Your task to perform on an android device: delete a single message in the gmail app Image 0: 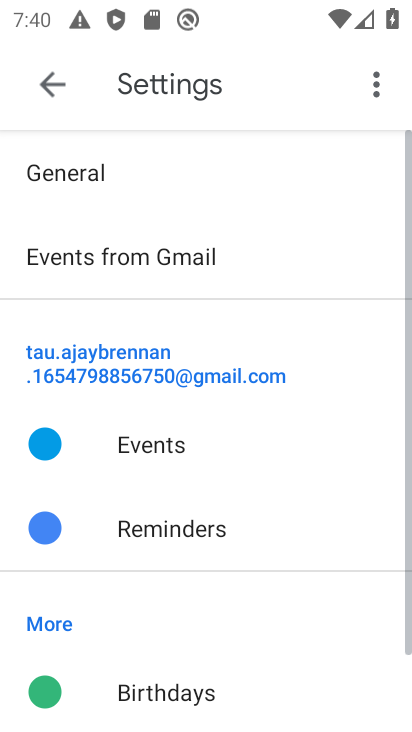
Step 0: click (242, 626)
Your task to perform on an android device: delete a single message in the gmail app Image 1: 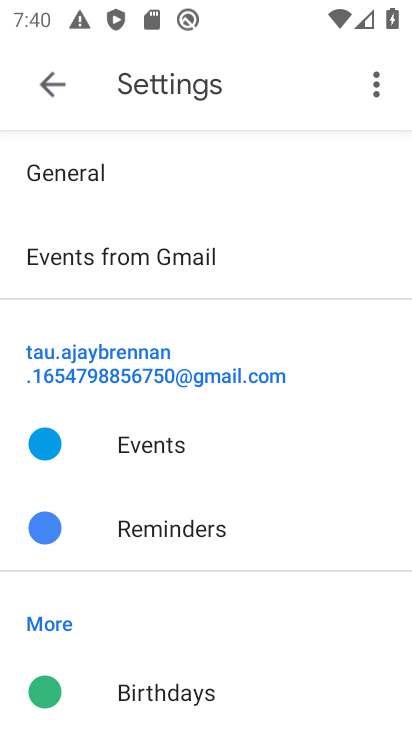
Step 1: press home button
Your task to perform on an android device: delete a single message in the gmail app Image 2: 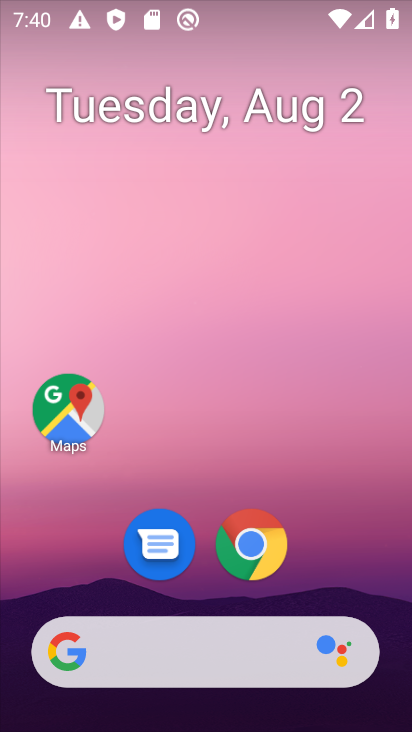
Step 2: drag from (199, 615) to (256, 178)
Your task to perform on an android device: delete a single message in the gmail app Image 3: 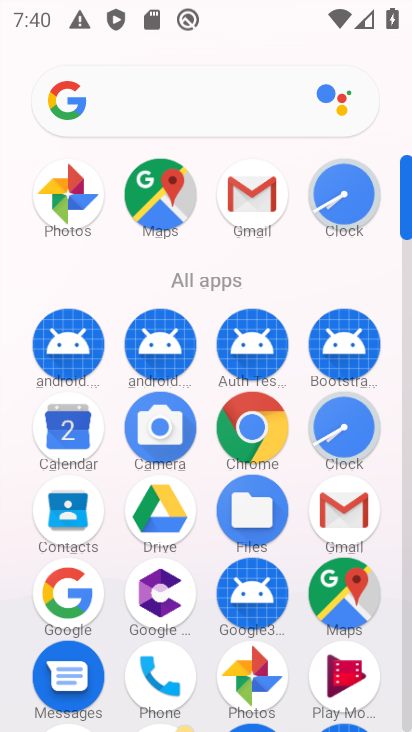
Step 3: click (254, 201)
Your task to perform on an android device: delete a single message in the gmail app Image 4: 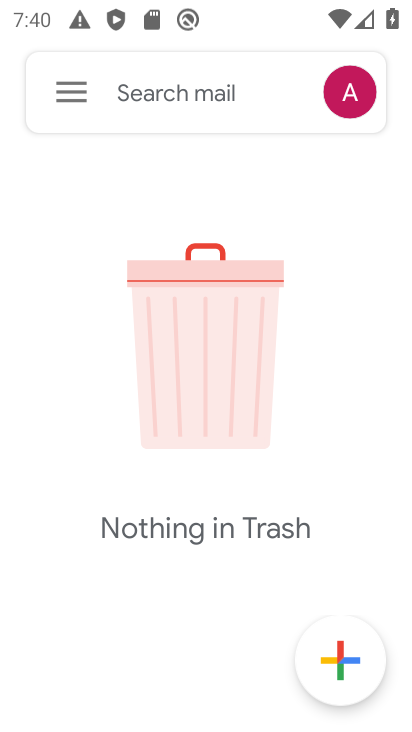
Step 4: click (56, 89)
Your task to perform on an android device: delete a single message in the gmail app Image 5: 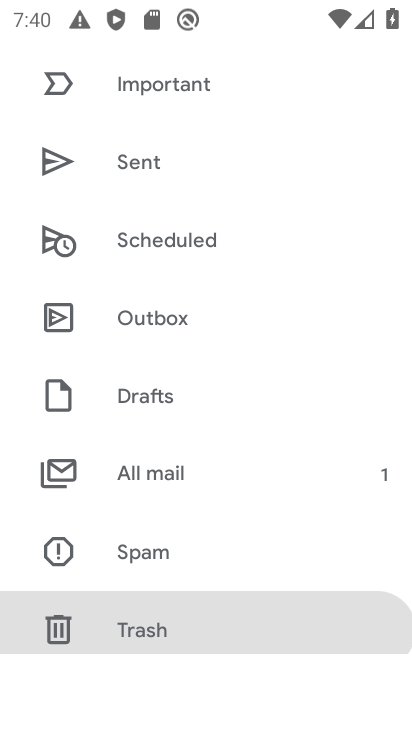
Step 5: drag from (161, 138) to (191, 456)
Your task to perform on an android device: delete a single message in the gmail app Image 6: 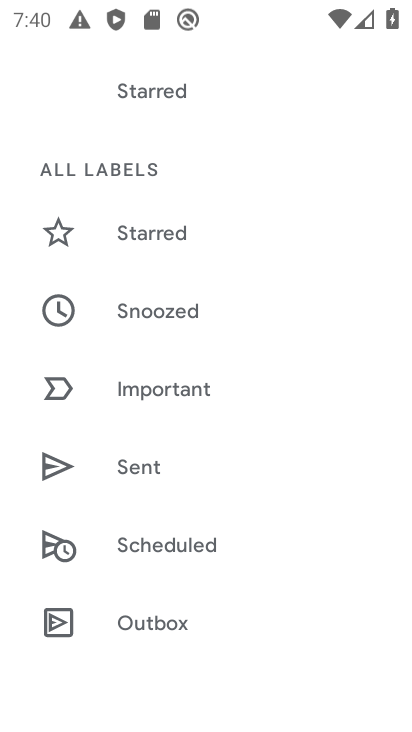
Step 6: drag from (190, 123) to (248, 492)
Your task to perform on an android device: delete a single message in the gmail app Image 7: 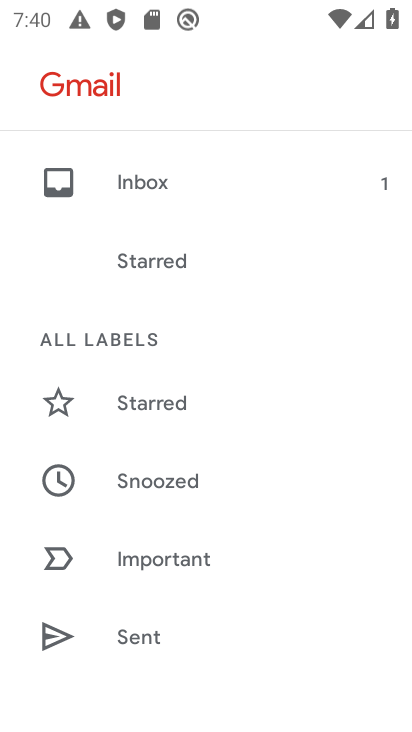
Step 7: click (166, 182)
Your task to perform on an android device: delete a single message in the gmail app Image 8: 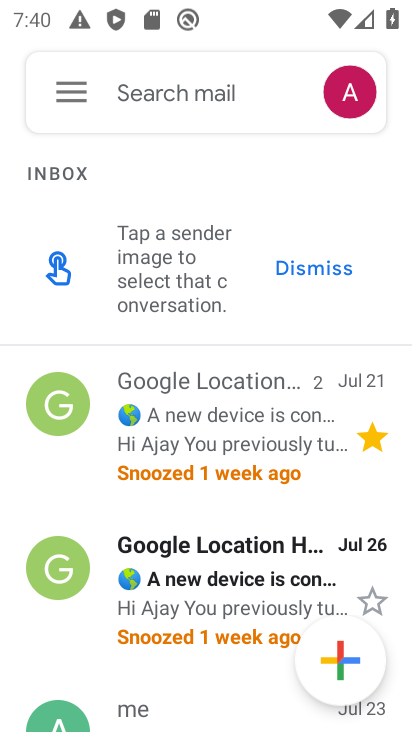
Step 8: click (199, 435)
Your task to perform on an android device: delete a single message in the gmail app Image 9: 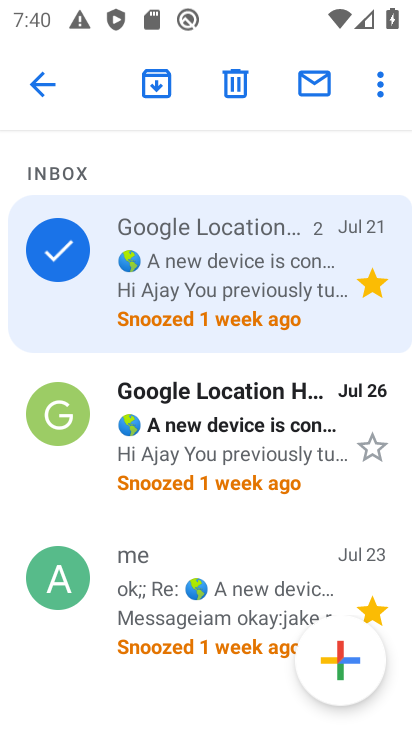
Step 9: click (236, 83)
Your task to perform on an android device: delete a single message in the gmail app Image 10: 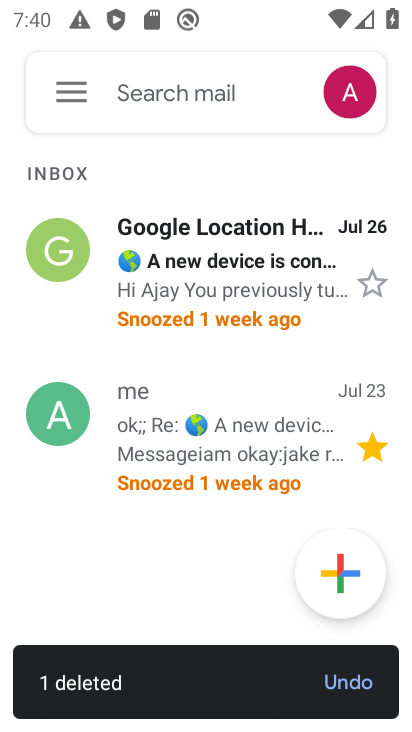
Step 10: task complete